Your task to perform on an android device: Open Yahoo.com Image 0: 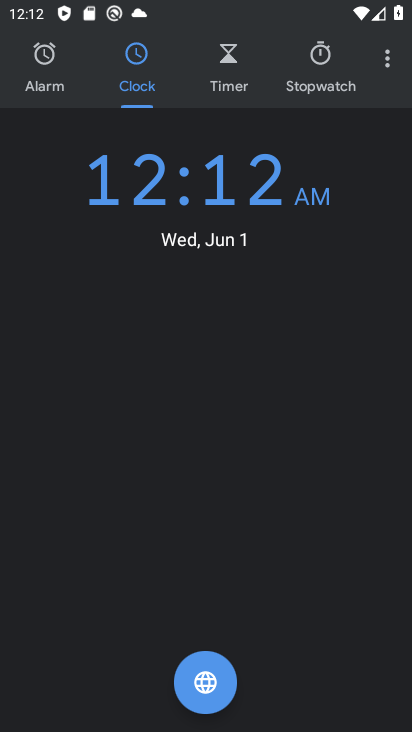
Step 0: press home button
Your task to perform on an android device: Open Yahoo.com Image 1: 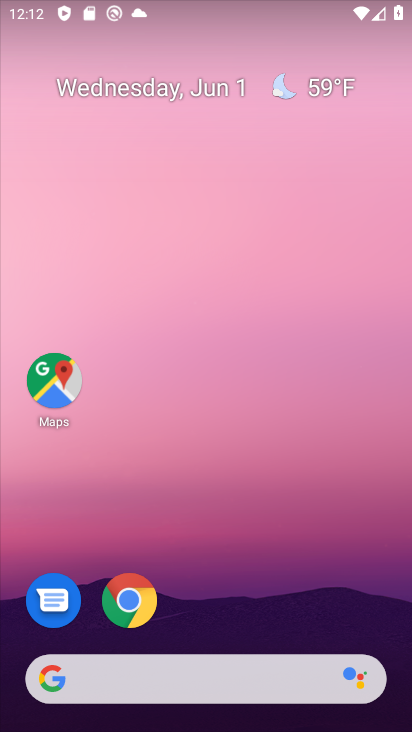
Step 1: click (124, 603)
Your task to perform on an android device: Open Yahoo.com Image 2: 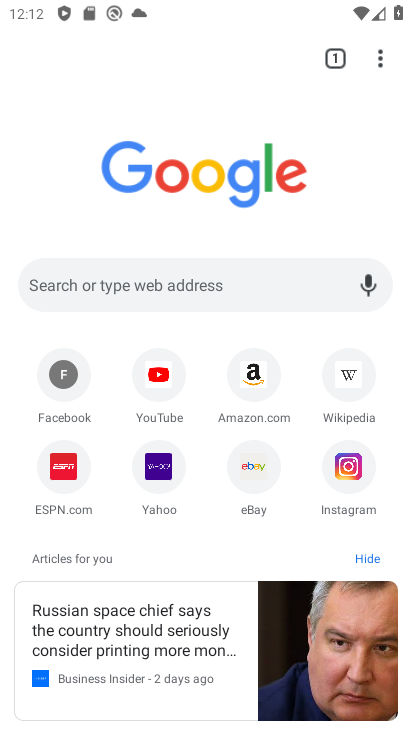
Step 2: click (152, 474)
Your task to perform on an android device: Open Yahoo.com Image 3: 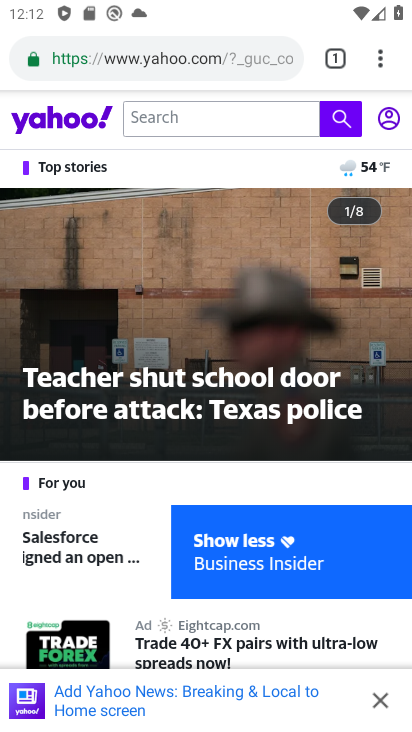
Step 3: task complete